Your task to perform on an android device: turn on data saver in the chrome app Image 0: 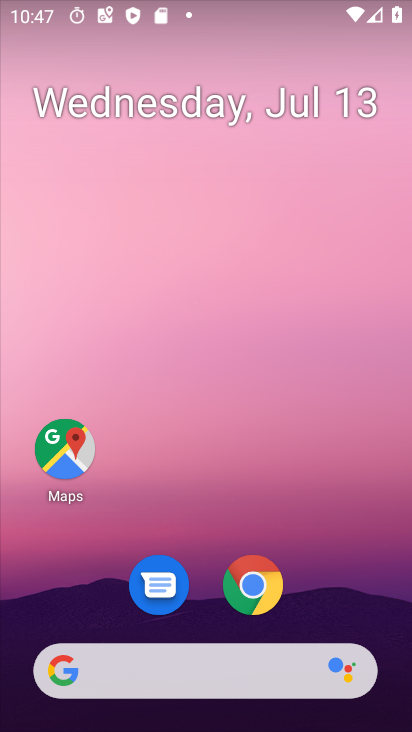
Step 0: click (265, 582)
Your task to perform on an android device: turn on data saver in the chrome app Image 1: 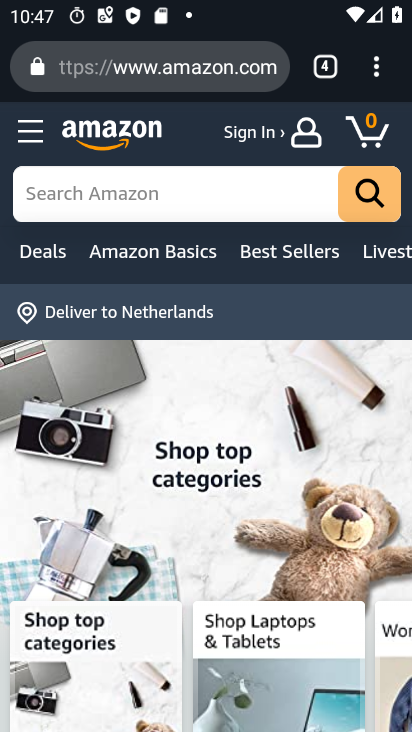
Step 1: click (377, 74)
Your task to perform on an android device: turn on data saver in the chrome app Image 2: 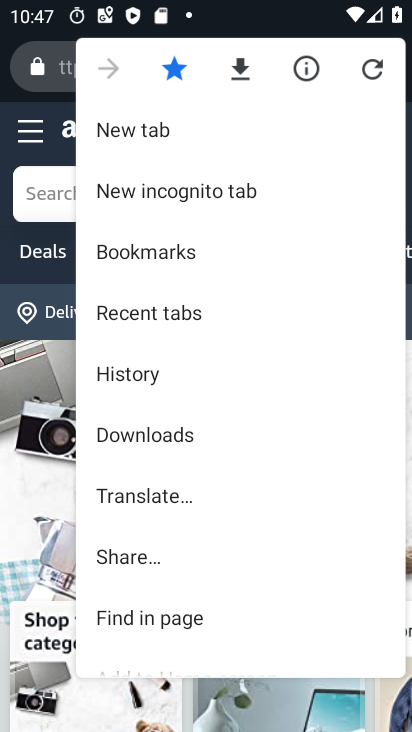
Step 2: drag from (272, 555) to (264, 133)
Your task to perform on an android device: turn on data saver in the chrome app Image 3: 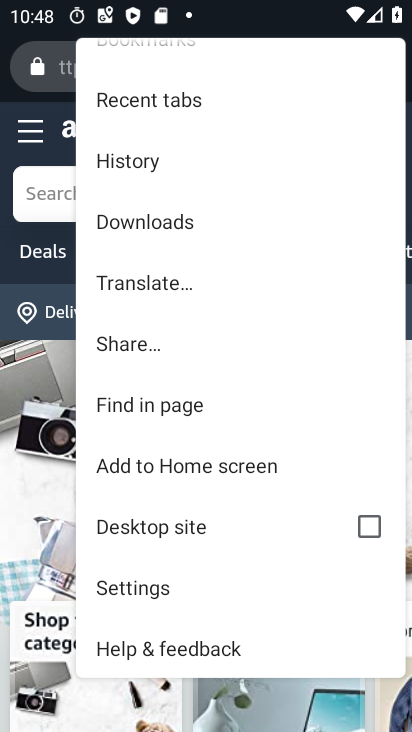
Step 3: click (144, 578)
Your task to perform on an android device: turn on data saver in the chrome app Image 4: 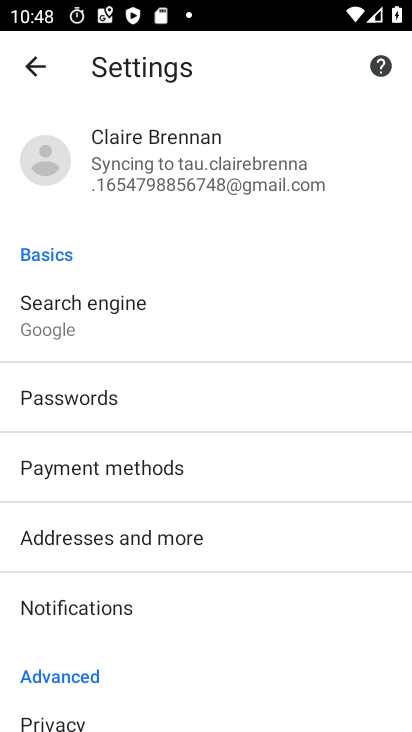
Step 4: drag from (217, 440) to (310, 13)
Your task to perform on an android device: turn on data saver in the chrome app Image 5: 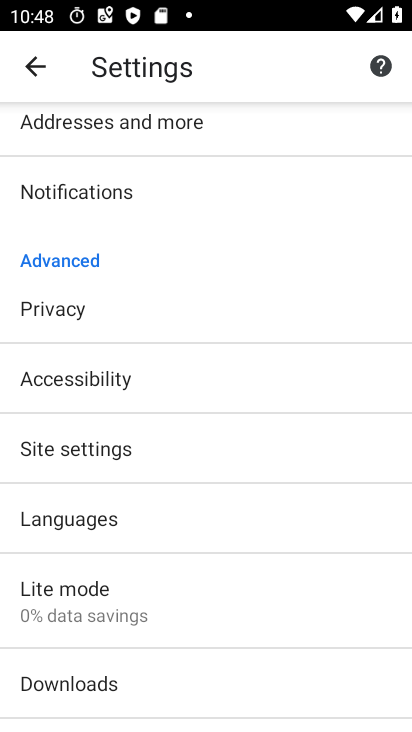
Step 5: click (99, 601)
Your task to perform on an android device: turn on data saver in the chrome app Image 6: 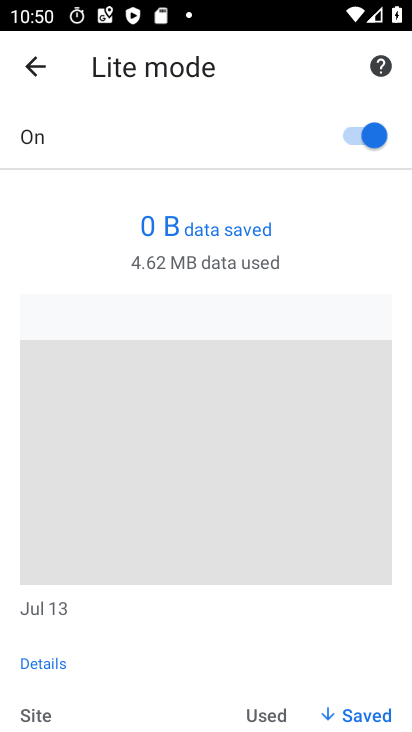
Step 6: task complete